Your task to perform on an android device: Go to internet settings Image 0: 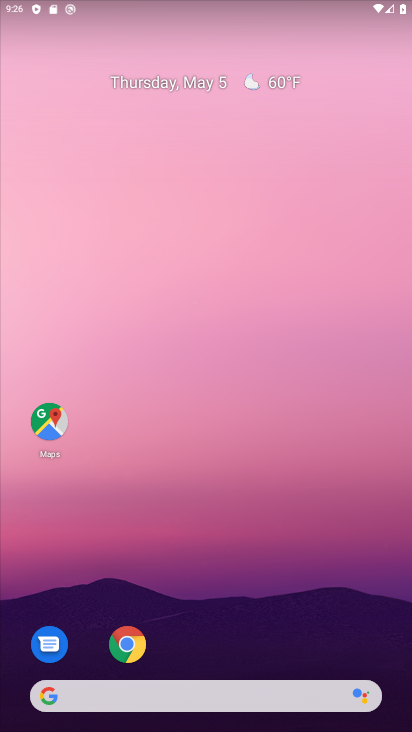
Step 0: drag from (340, 593) to (306, 133)
Your task to perform on an android device: Go to internet settings Image 1: 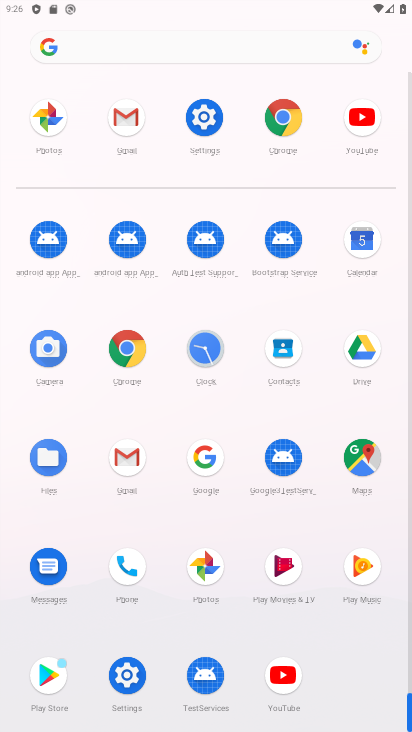
Step 1: click (204, 118)
Your task to perform on an android device: Go to internet settings Image 2: 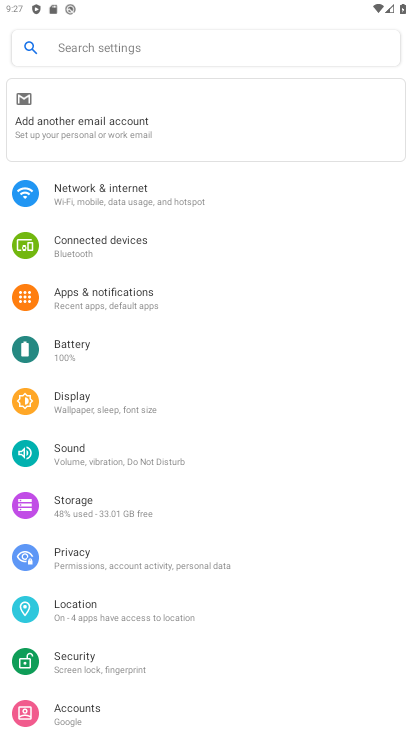
Step 2: click (154, 198)
Your task to perform on an android device: Go to internet settings Image 3: 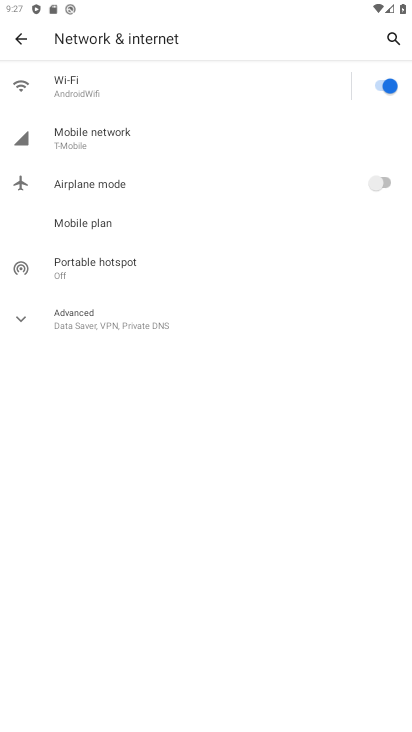
Step 3: click (112, 141)
Your task to perform on an android device: Go to internet settings Image 4: 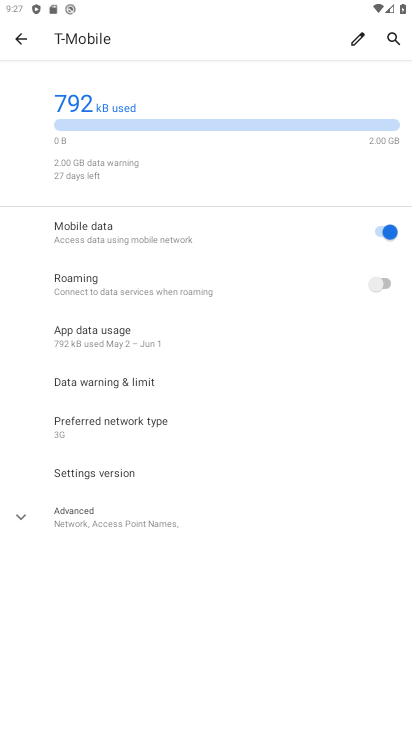
Step 4: task complete